Your task to perform on an android device: Open Youtube and go to "Your channel" Image 0: 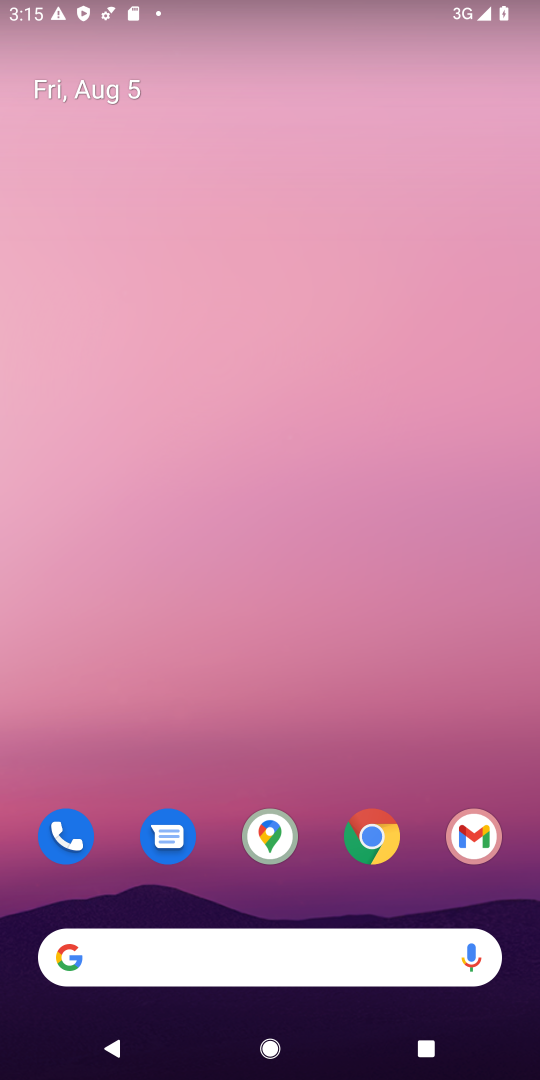
Step 0: drag from (247, 749) to (118, 100)
Your task to perform on an android device: Open Youtube and go to "Your channel" Image 1: 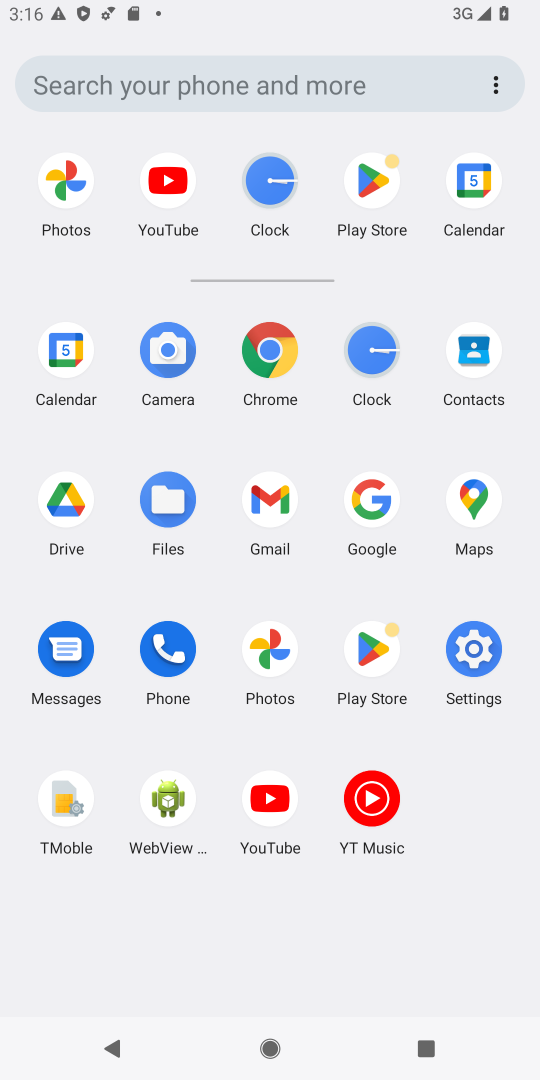
Step 1: click (174, 174)
Your task to perform on an android device: Open Youtube and go to "Your channel" Image 2: 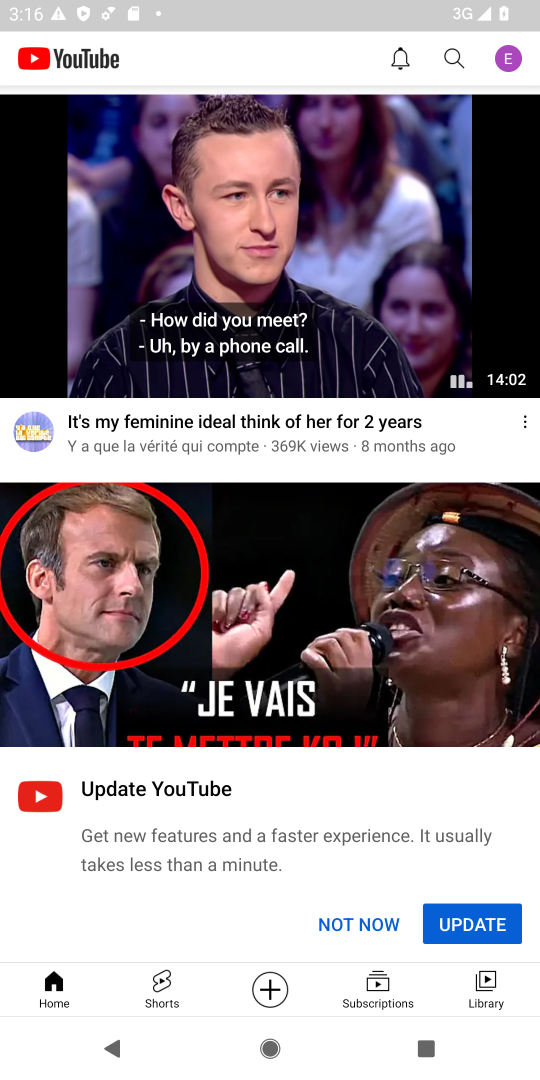
Step 2: click (505, 49)
Your task to perform on an android device: Open Youtube and go to "Your channel" Image 3: 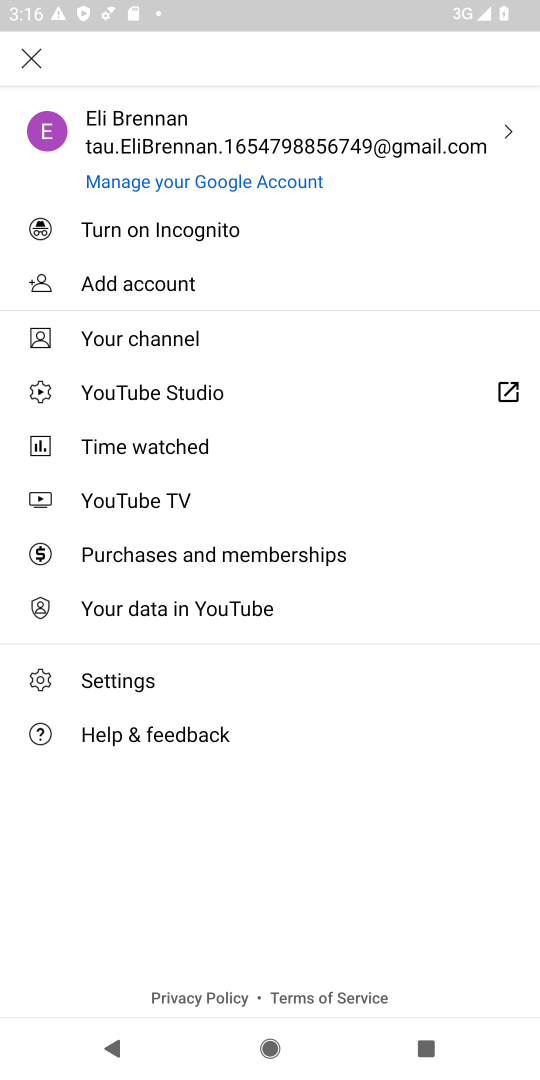
Step 3: click (133, 342)
Your task to perform on an android device: Open Youtube and go to "Your channel" Image 4: 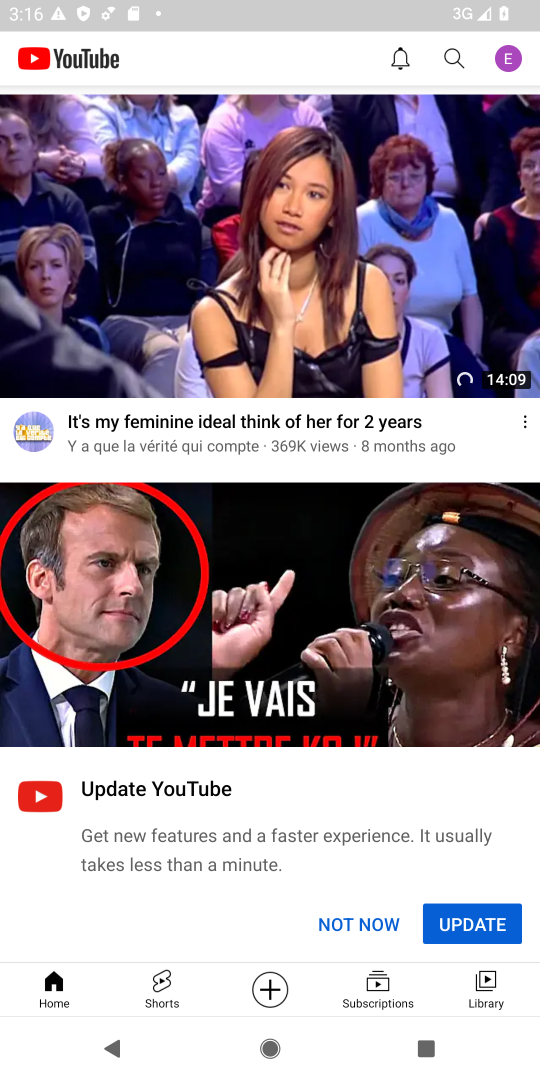
Step 4: task complete